Your task to perform on an android device: turn off translation in the chrome app Image 0: 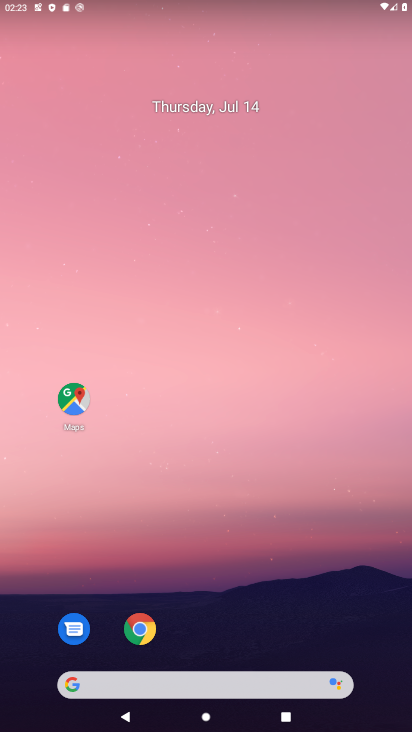
Step 0: click (145, 630)
Your task to perform on an android device: turn off translation in the chrome app Image 1: 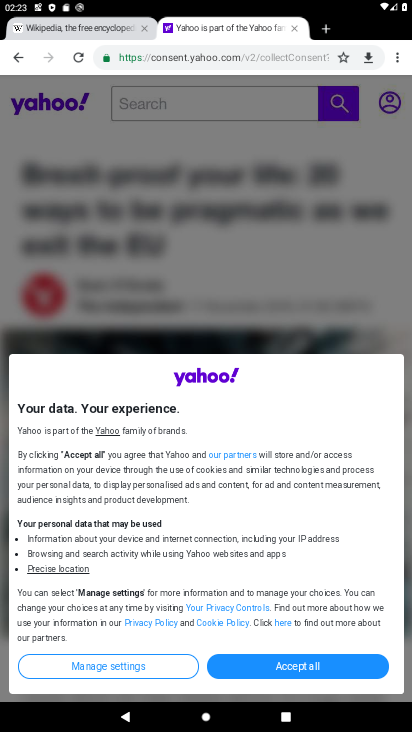
Step 1: click (401, 54)
Your task to perform on an android device: turn off translation in the chrome app Image 2: 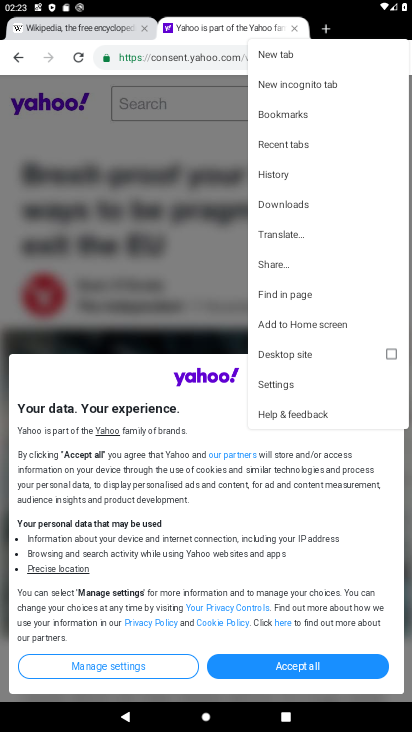
Step 2: click (281, 387)
Your task to perform on an android device: turn off translation in the chrome app Image 3: 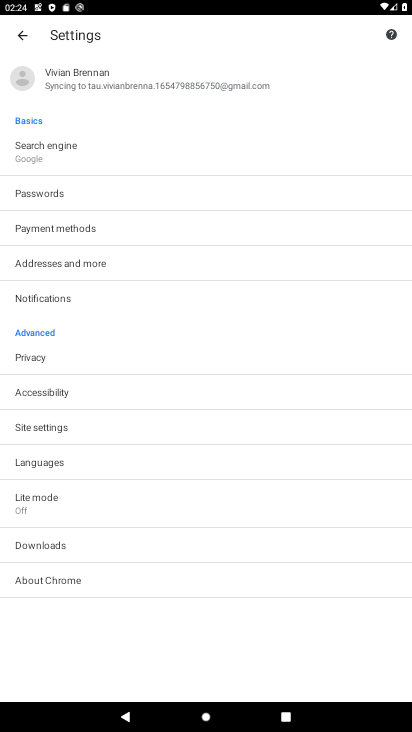
Step 3: click (60, 463)
Your task to perform on an android device: turn off translation in the chrome app Image 4: 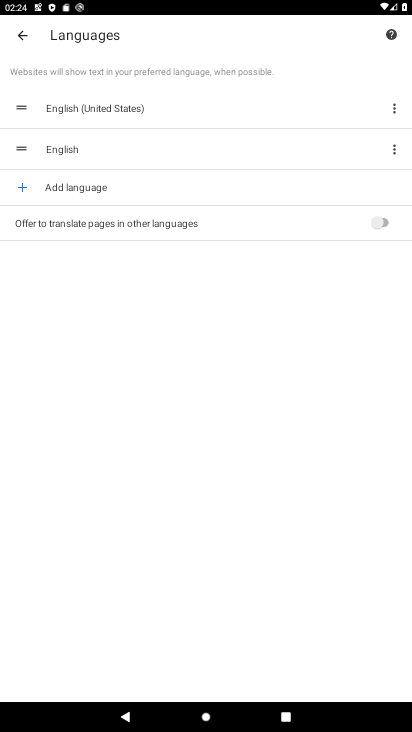
Step 4: task complete